Your task to perform on an android device: Search for Italian restaurants on Maps Image 0: 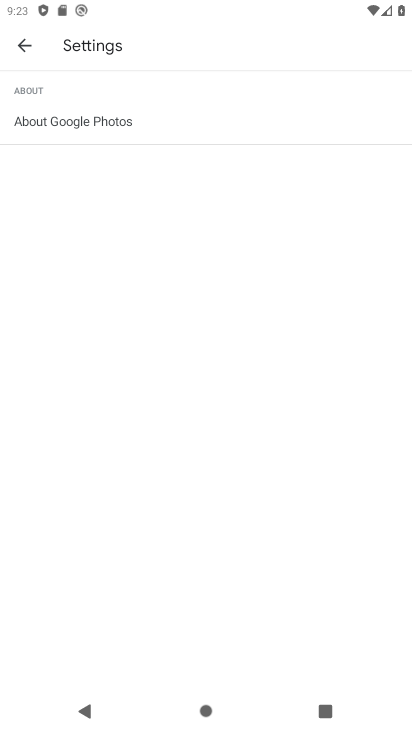
Step 0: press back button
Your task to perform on an android device: Search for Italian restaurants on Maps Image 1: 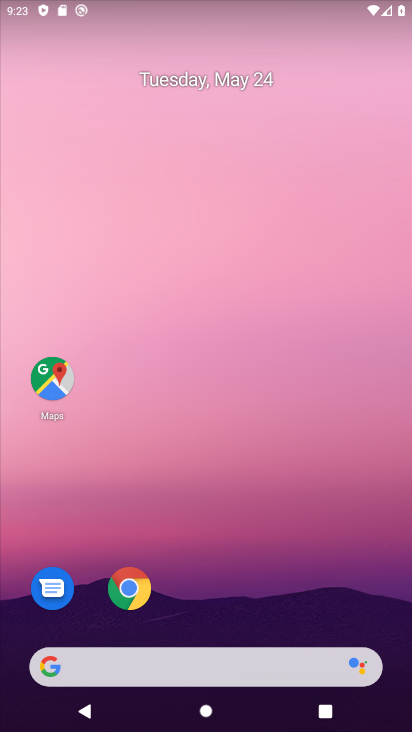
Step 1: drag from (212, 545) to (175, 33)
Your task to perform on an android device: Search for Italian restaurants on Maps Image 2: 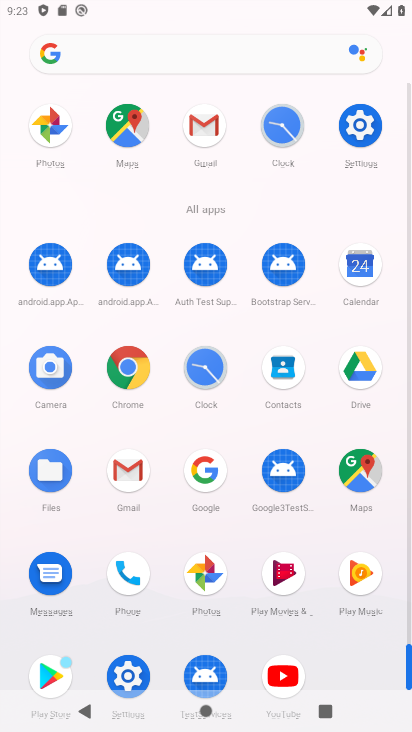
Step 2: drag from (8, 555) to (18, 280)
Your task to perform on an android device: Search for Italian restaurants on Maps Image 3: 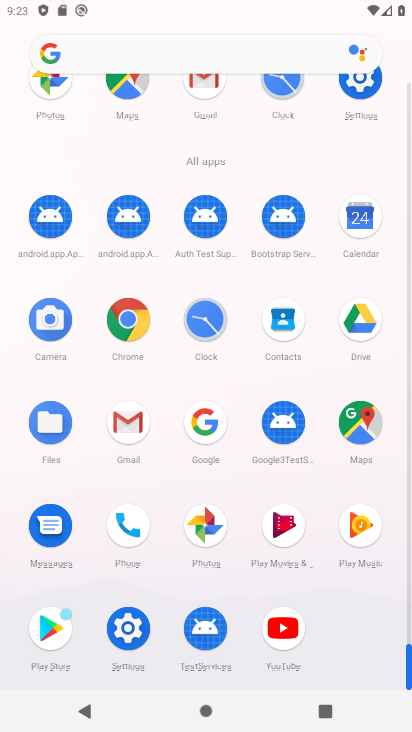
Step 3: click (367, 420)
Your task to perform on an android device: Search for Italian restaurants on Maps Image 4: 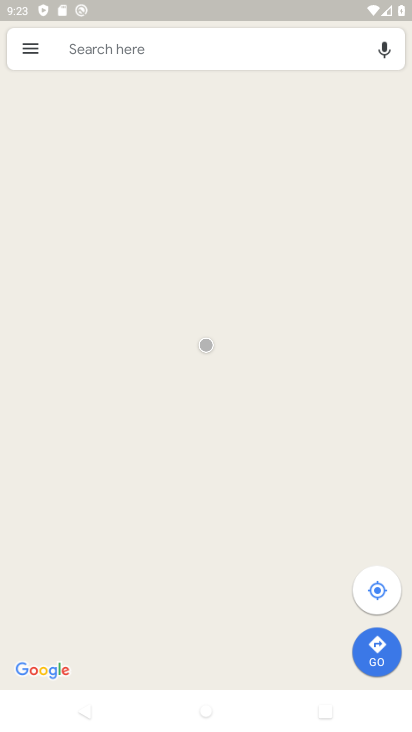
Step 4: click (153, 49)
Your task to perform on an android device: Search for Italian restaurants on Maps Image 5: 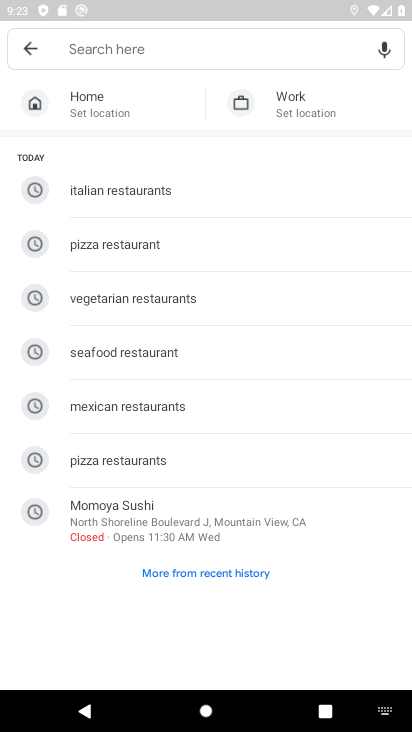
Step 5: click (132, 200)
Your task to perform on an android device: Search for Italian restaurants on Maps Image 6: 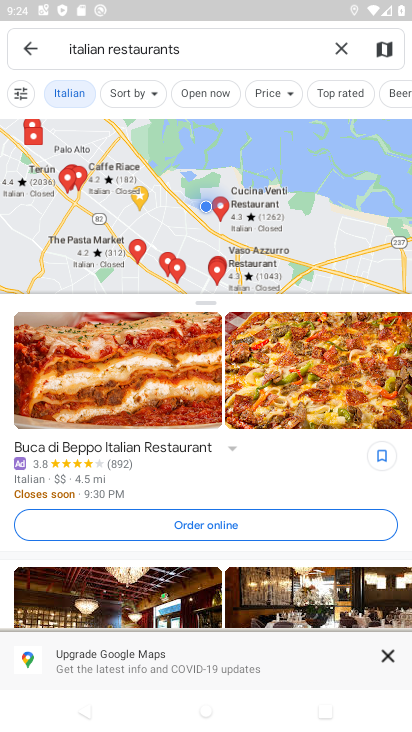
Step 6: task complete